Your task to perform on an android device: Go to Amazon Image 0: 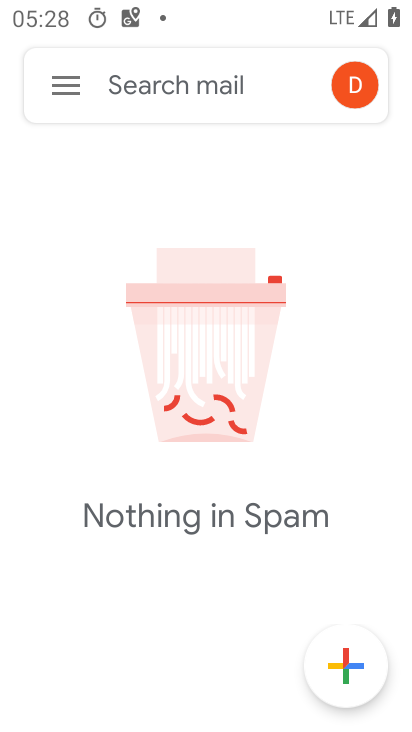
Step 0: press home button
Your task to perform on an android device: Go to Amazon Image 1: 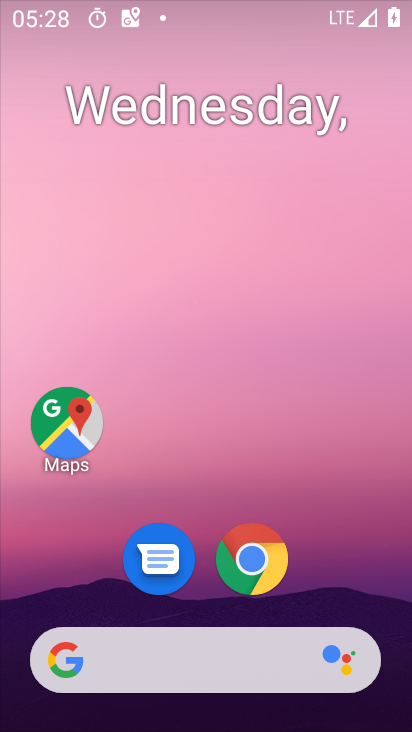
Step 1: click (256, 558)
Your task to perform on an android device: Go to Amazon Image 2: 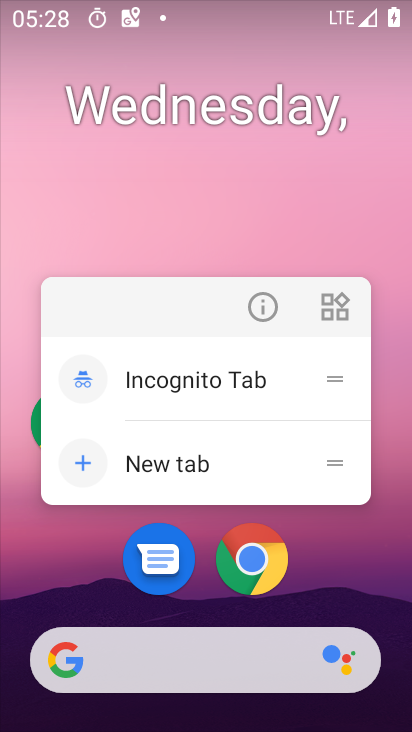
Step 2: click (263, 565)
Your task to perform on an android device: Go to Amazon Image 3: 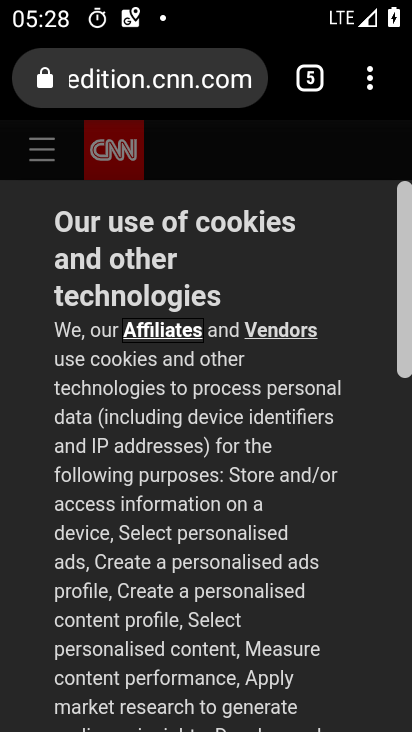
Step 3: click (310, 68)
Your task to perform on an android device: Go to Amazon Image 4: 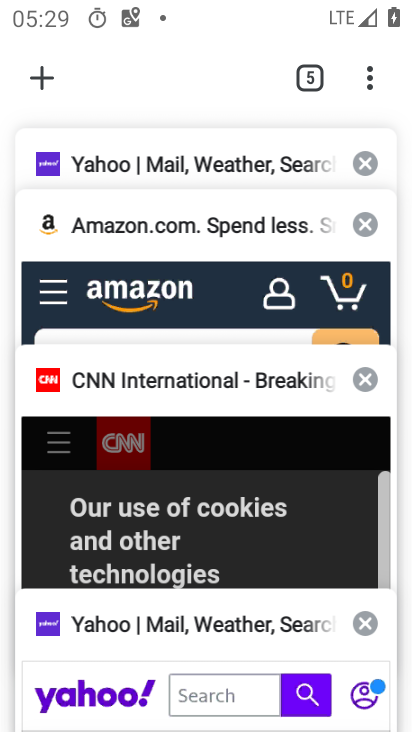
Step 4: click (34, 75)
Your task to perform on an android device: Go to Amazon Image 5: 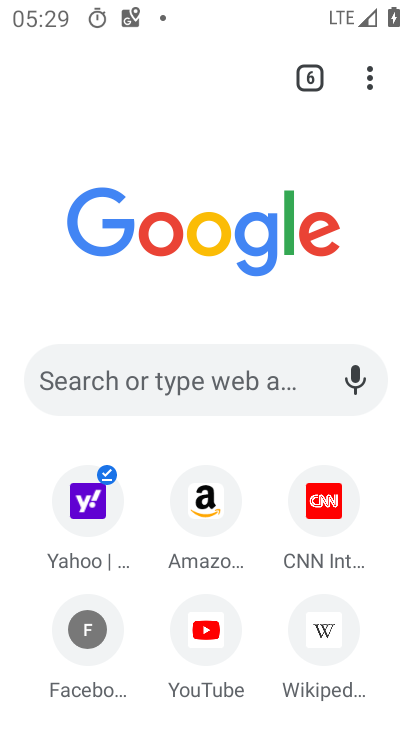
Step 5: click (209, 508)
Your task to perform on an android device: Go to Amazon Image 6: 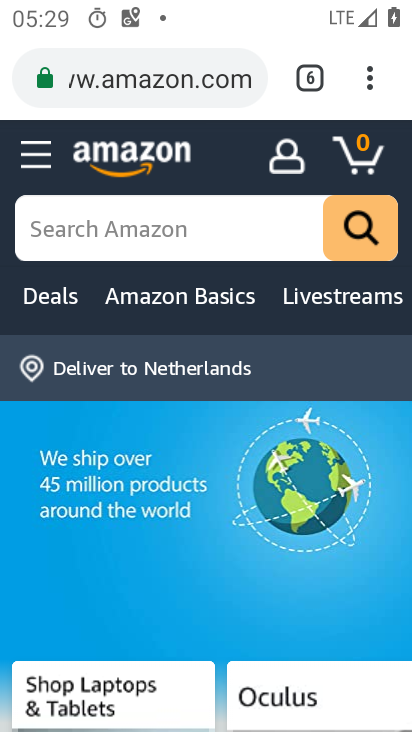
Step 6: task complete